Your task to perform on an android device: Do I have any events tomorrow? Image 0: 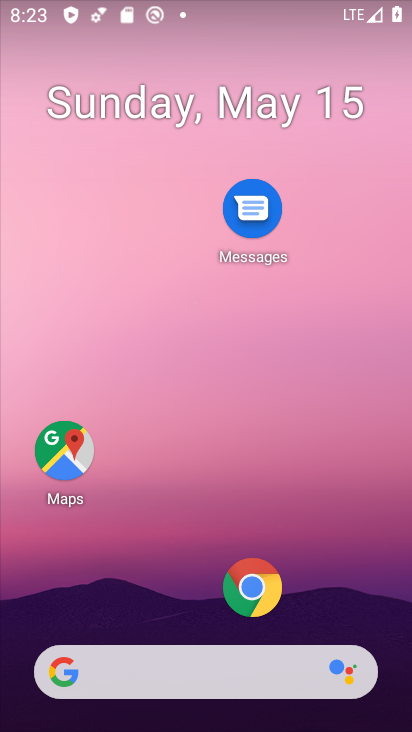
Step 0: drag from (171, 631) to (190, 208)
Your task to perform on an android device: Do I have any events tomorrow? Image 1: 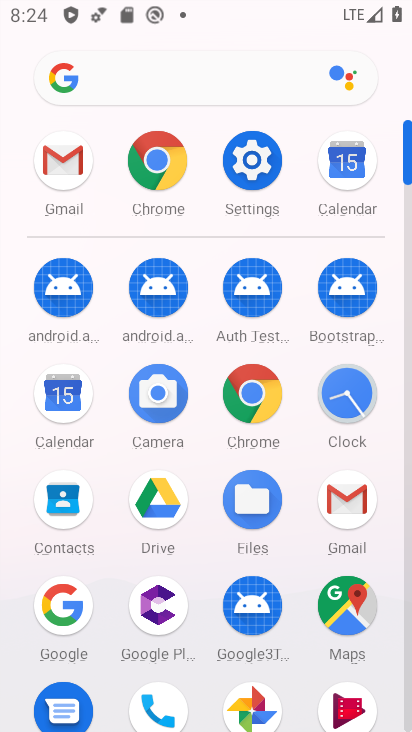
Step 1: click (58, 393)
Your task to perform on an android device: Do I have any events tomorrow? Image 2: 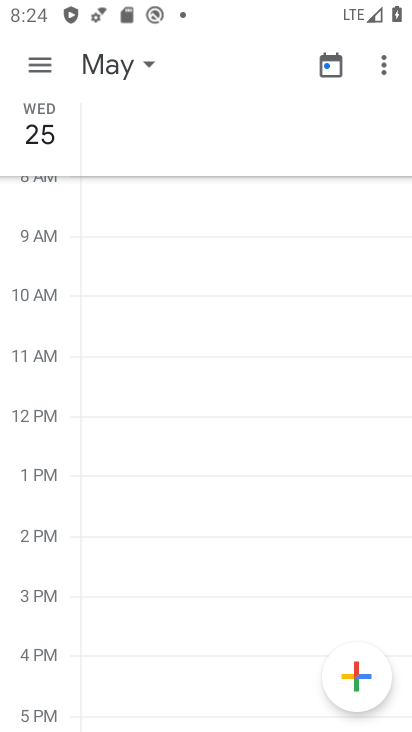
Step 2: click (142, 66)
Your task to perform on an android device: Do I have any events tomorrow? Image 3: 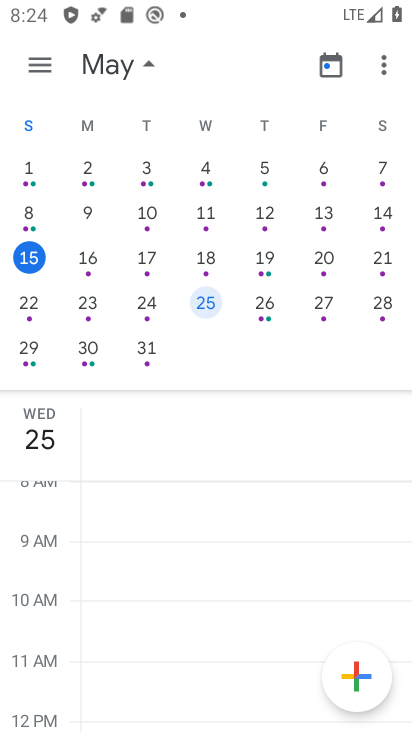
Step 3: click (98, 260)
Your task to perform on an android device: Do I have any events tomorrow? Image 4: 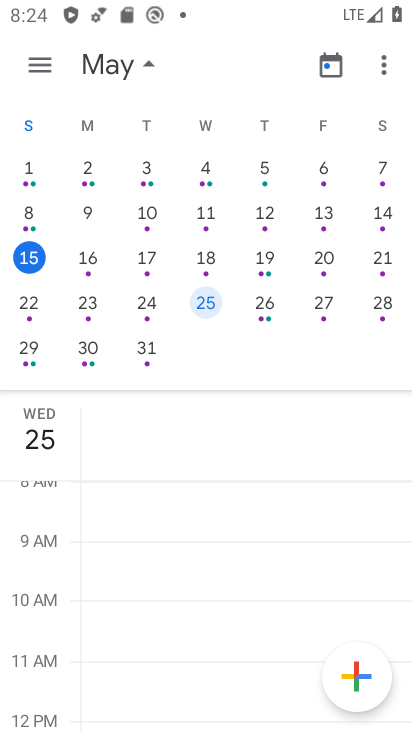
Step 4: click (86, 257)
Your task to perform on an android device: Do I have any events tomorrow? Image 5: 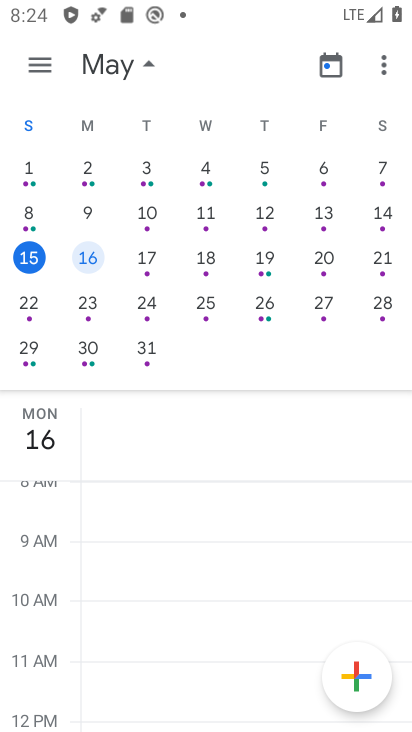
Step 5: click (136, 250)
Your task to perform on an android device: Do I have any events tomorrow? Image 6: 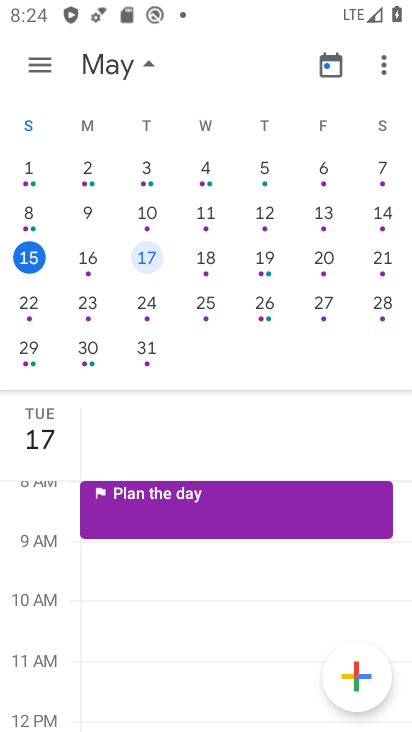
Step 6: click (210, 257)
Your task to perform on an android device: Do I have any events tomorrow? Image 7: 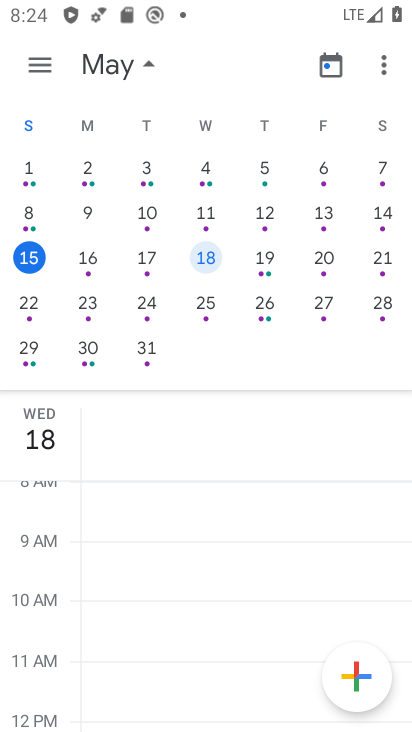
Step 7: task complete